Your task to perform on an android device: View the shopping cart on walmart.com. Add logitech g pro to the cart on walmart.com, then select checkout. Image 0: 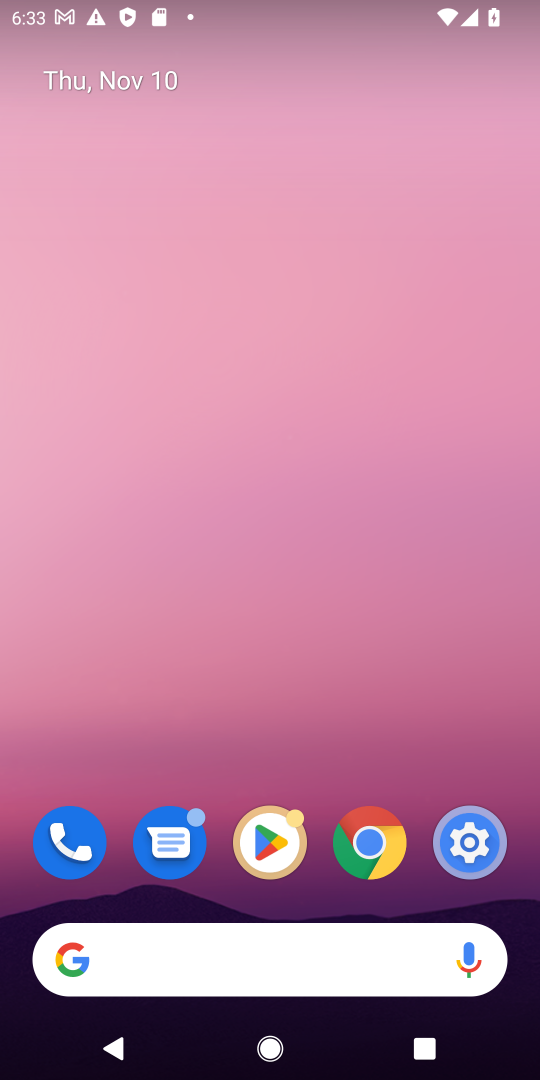
Step 0: click (370, 848)
Your task to perform on an android device: View the shopping cart on walmart.com. Add logitech g pro to the cart on walmart.com, then select checkout. Image 1: 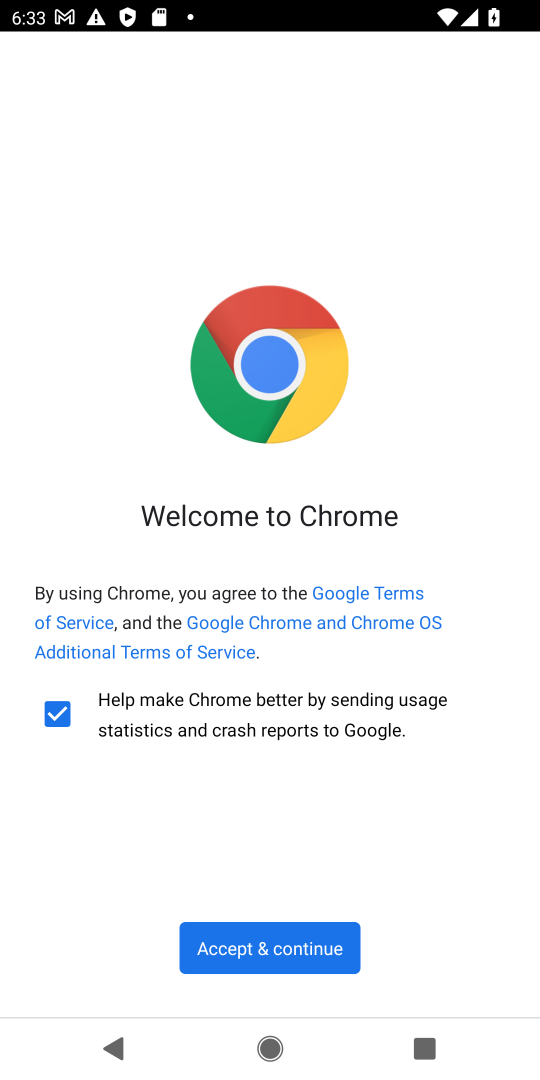
Step 1: click (237, 954)
Your task to perform on an android device: View the shopping cart on walmart.com. Add logitech g pro to the cart on walmart.com, then select checkout. Image 2: 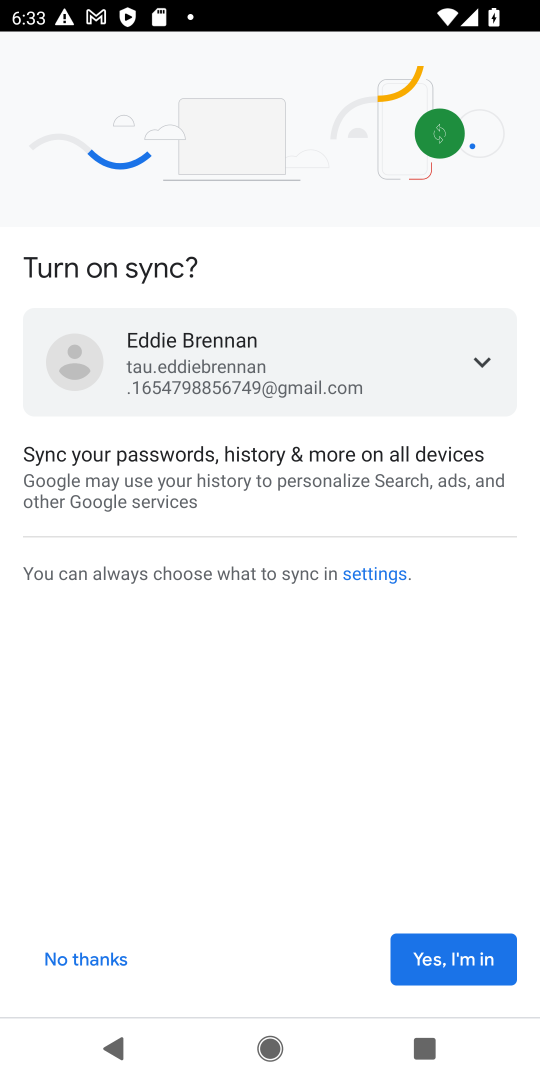
Step 2: click (446, 947)
Your task to perform on an android device: View the shopping cart on walmart.com. Add logitech g pro to the cart on walmart.com, then select checkout. Image 3: 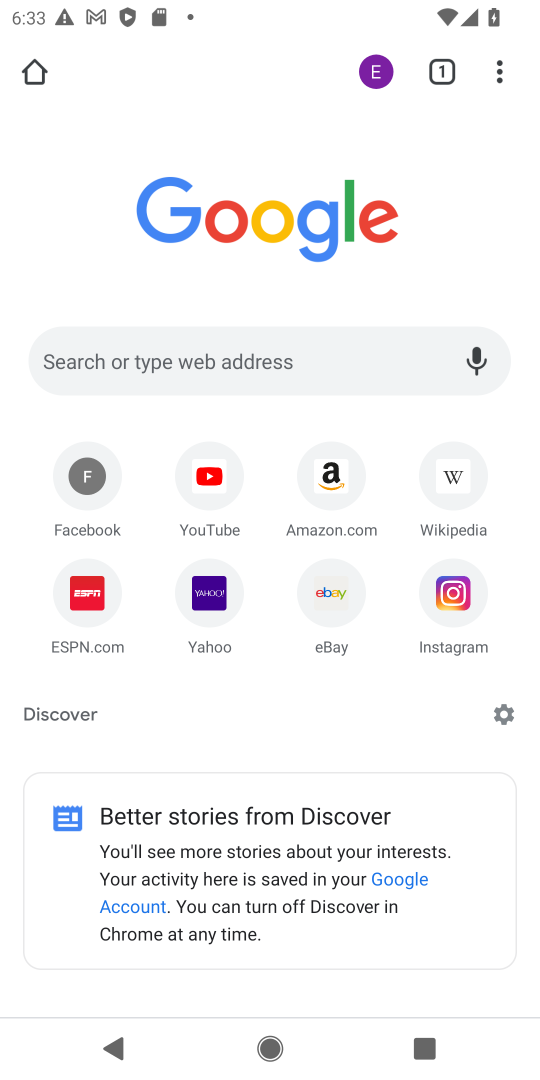
Step 3: click (237, 366)
Your task to perform on an android device: View the shopping cart on walmart.com. Add logitech g pro to the cart on walmart.com, then select checkout. Image 4: 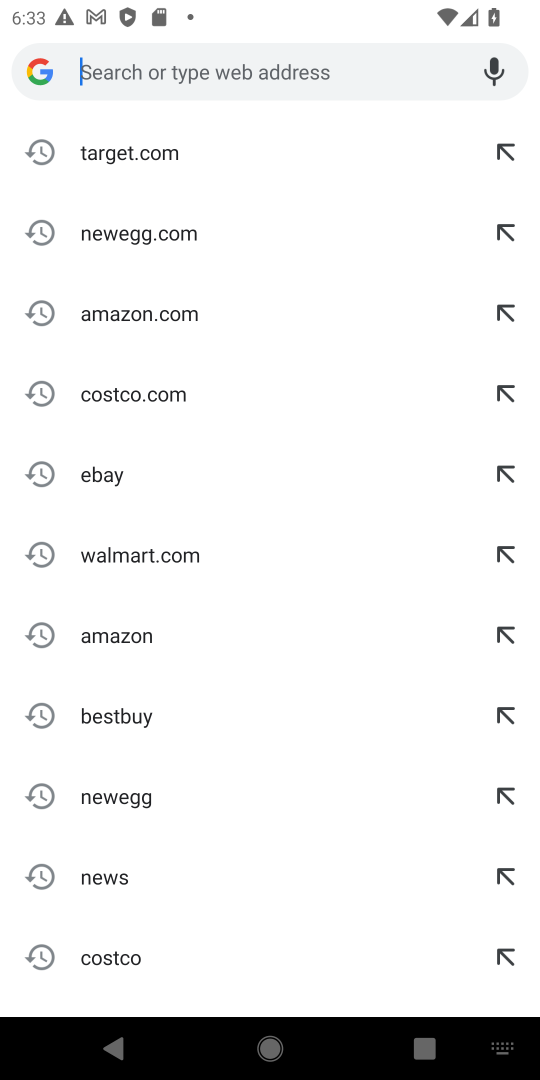
Step 4: click (124, 550)
Your task to perform on an android device: View the shopping cart on walmart.com. Add logitech g pro to the cart on walmart.com, then select checkout. Image 5: 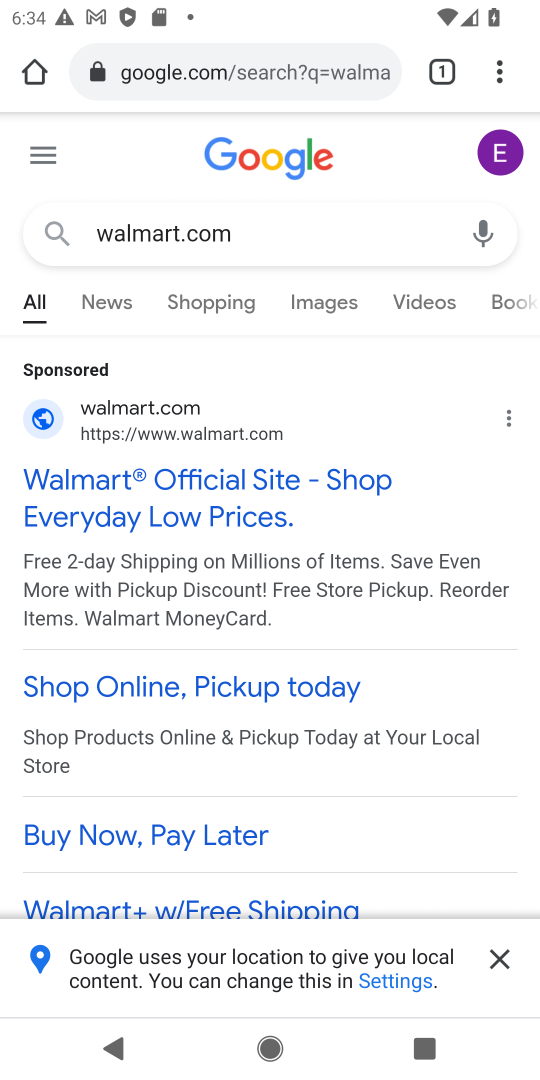
Step 5: click (195, 464)
Your task to perform on an android device: View the shopping cart on walmart.com. Add logitech g pro to the cart on walmart.com, then select checkout. Image 6: 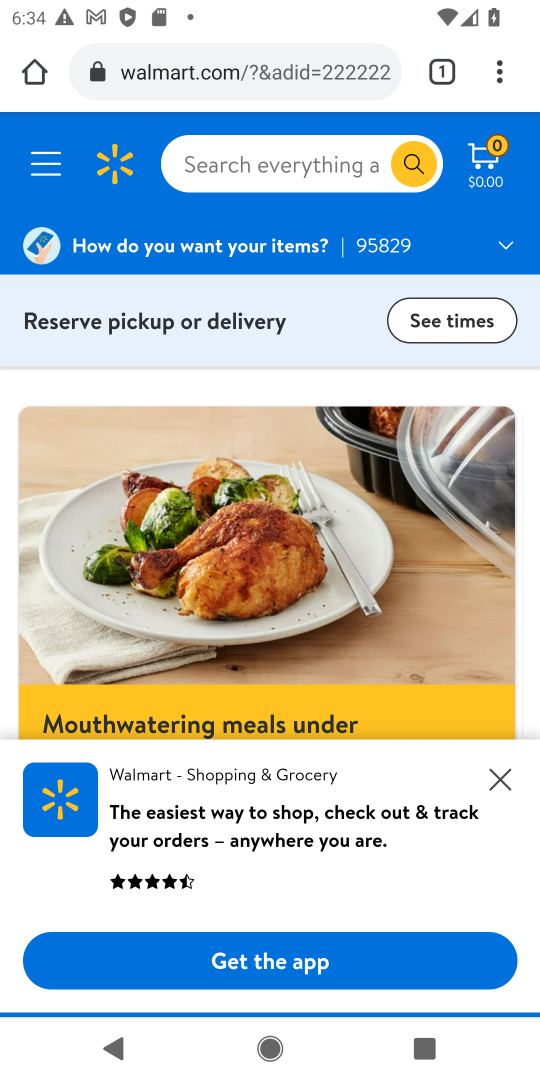
Step 6: click (506, 772)
Your task to perform on an android device: View the shopping cart on walmart.com. Add logitech g pro to the cart on walmart.com, then select checkout. Image 7: 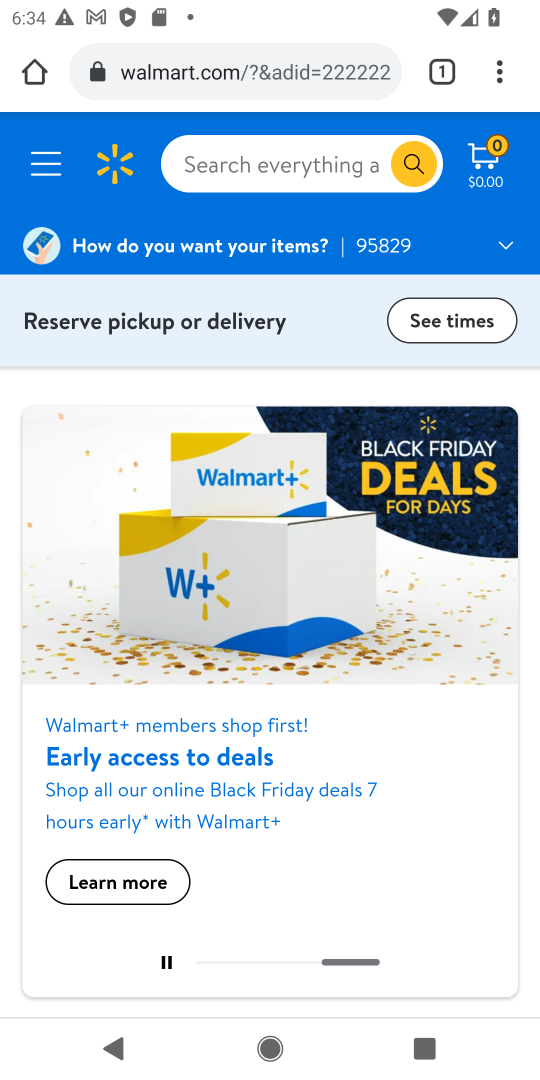
Step 7: click (287, 161)
Your task to perform on an android device: View the shopping cart on walmart.com. Add logitech g pro to the cart on walmart.com, then select checkout. Image 8: 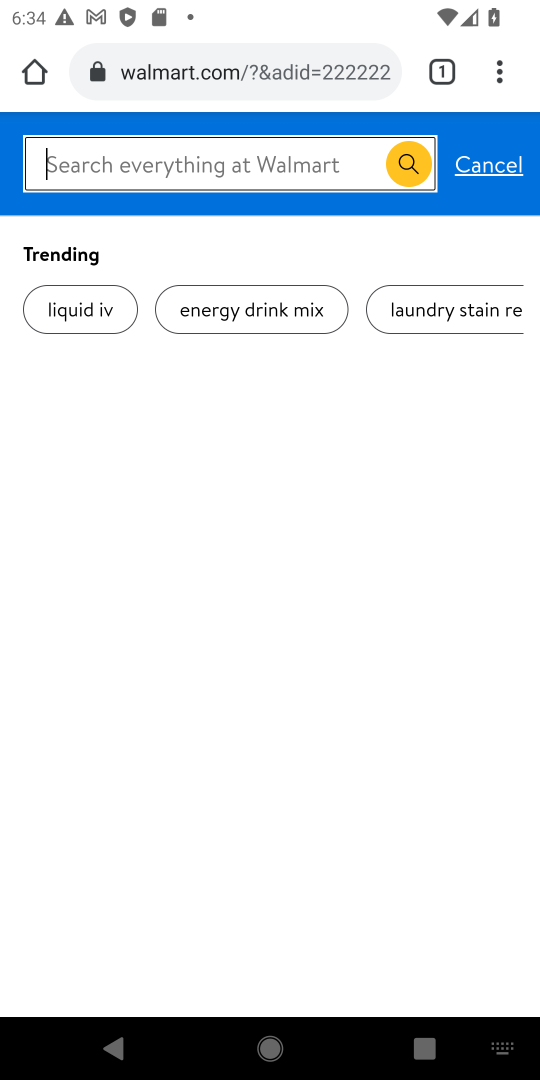
Step 8: type "logitech g pro"
Your task to perform on an android device: View the shopping cart on walmart.com. Add logitech g pro to the cart on walmart.com, then select checkout. Image 9: 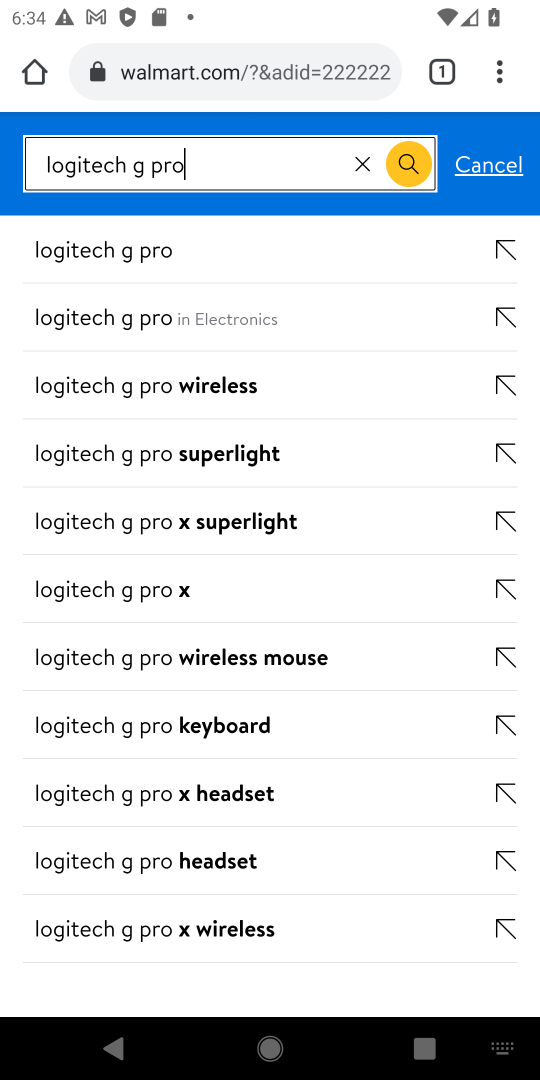
Step 9: click (195, 315)
Your task to perform on an android device: View the shopping cart on walmart.com. Add logitech g pro to the cart on walmart.com, then select checkout. Image 10: 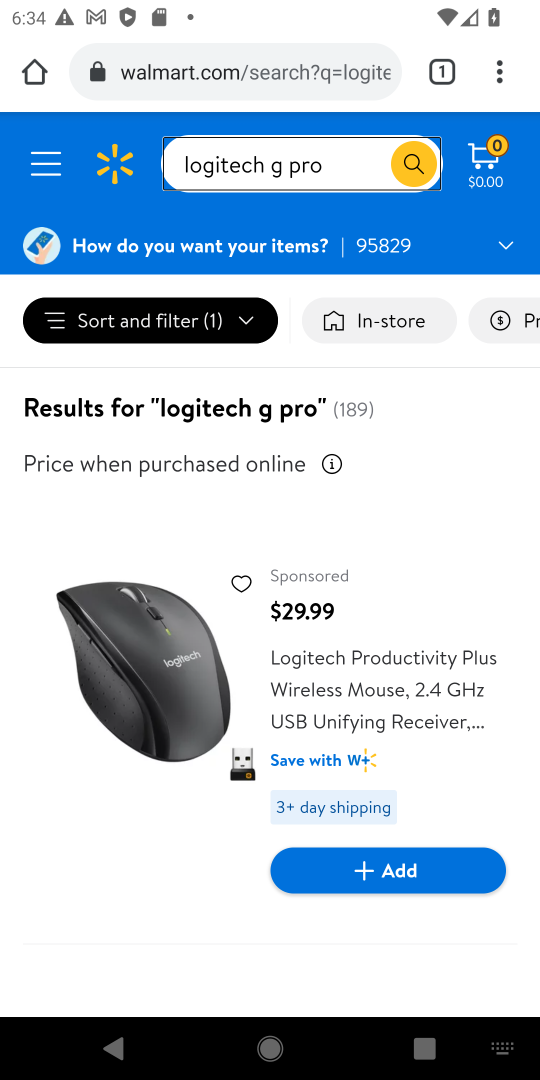
Step 10: click (364, 865)
Your task to perform on an android device: View the shopping cart on walmart.com. Add logitech g pro to the cart on walmart.com, then select checkout. Image 11: 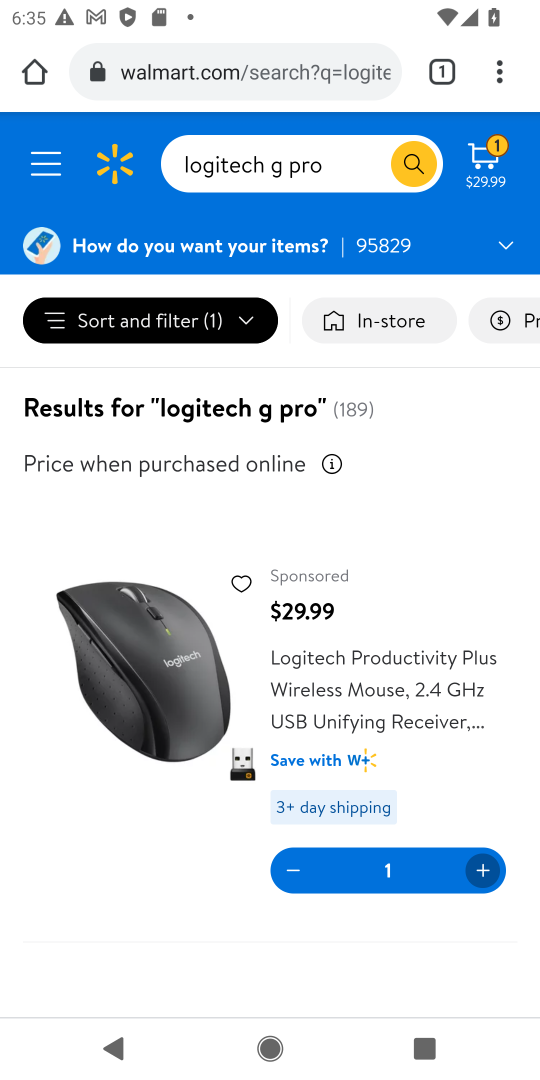
Step 11: click (481, 161)
Your task to perform on an android device: View the shopping cart on walmart.com. Add logitech g pro to the cart on walmart.com, then select checkout. Image 12: 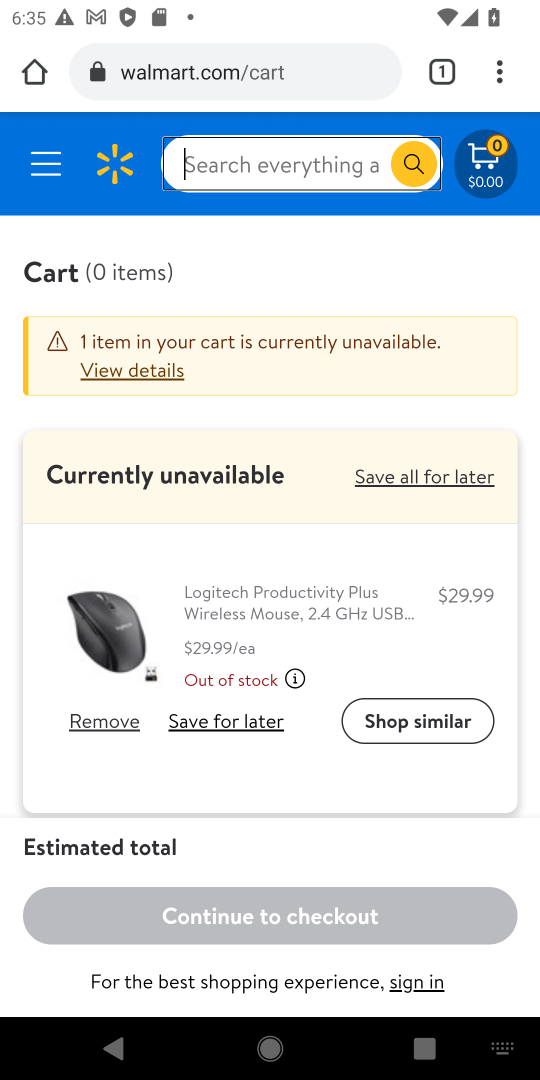
Step 12: task complete